Your task to perform on an android device: open app "DoorDash - Food Delivery" (install if not already installed) and enter user name: "Richard@outlook.com" and password: "informally" Image 0: 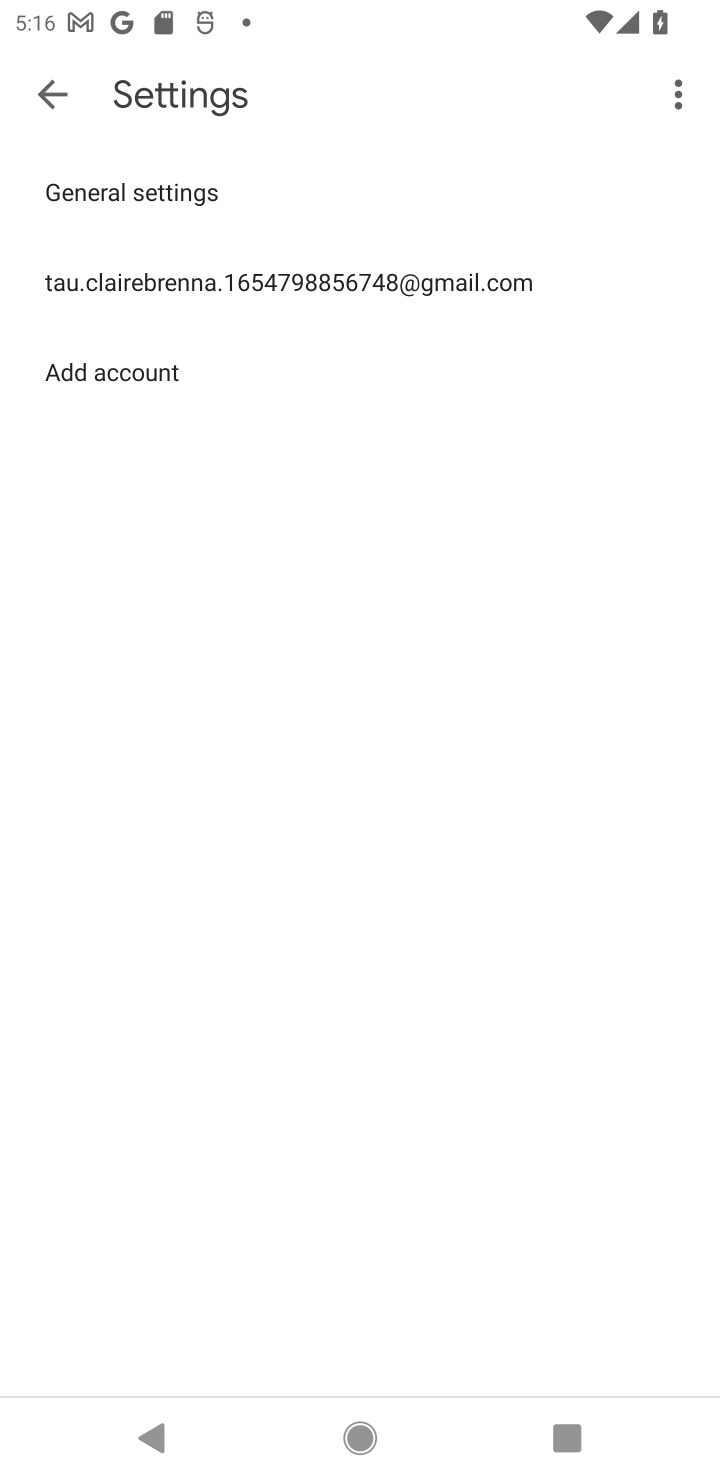
Step 0: press home button
Your task to perform on an android device: open app "DoorDash - Food Delivery" (install if not already installed) and enter user name: "Richard@outlook.com" and password: "informally" Image 1: 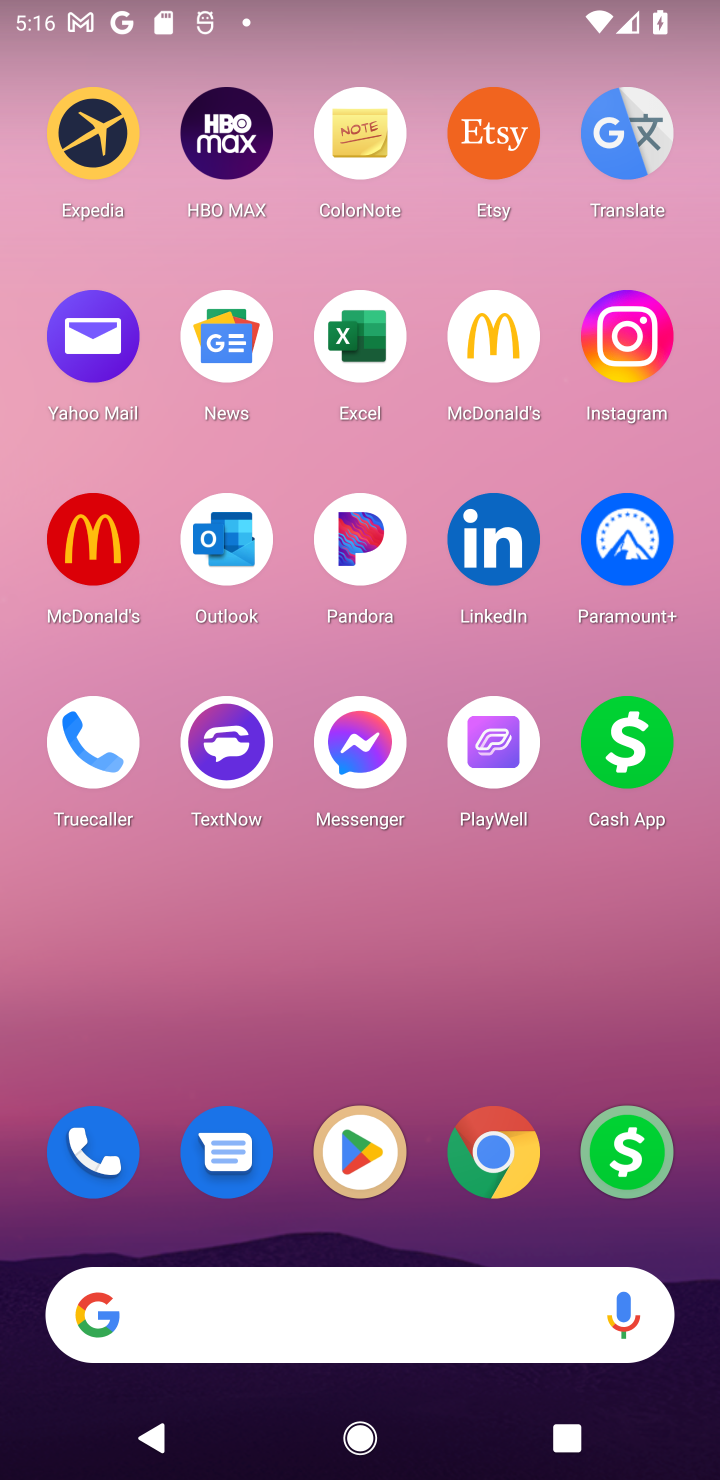
Step 1: click (364, 1163)
Your task to perform on an android device: open app "DoorDash - Food Delivery" (install if not already installed) and enter user name: "Richard@outlook.com" and password: "informally" Image 2: 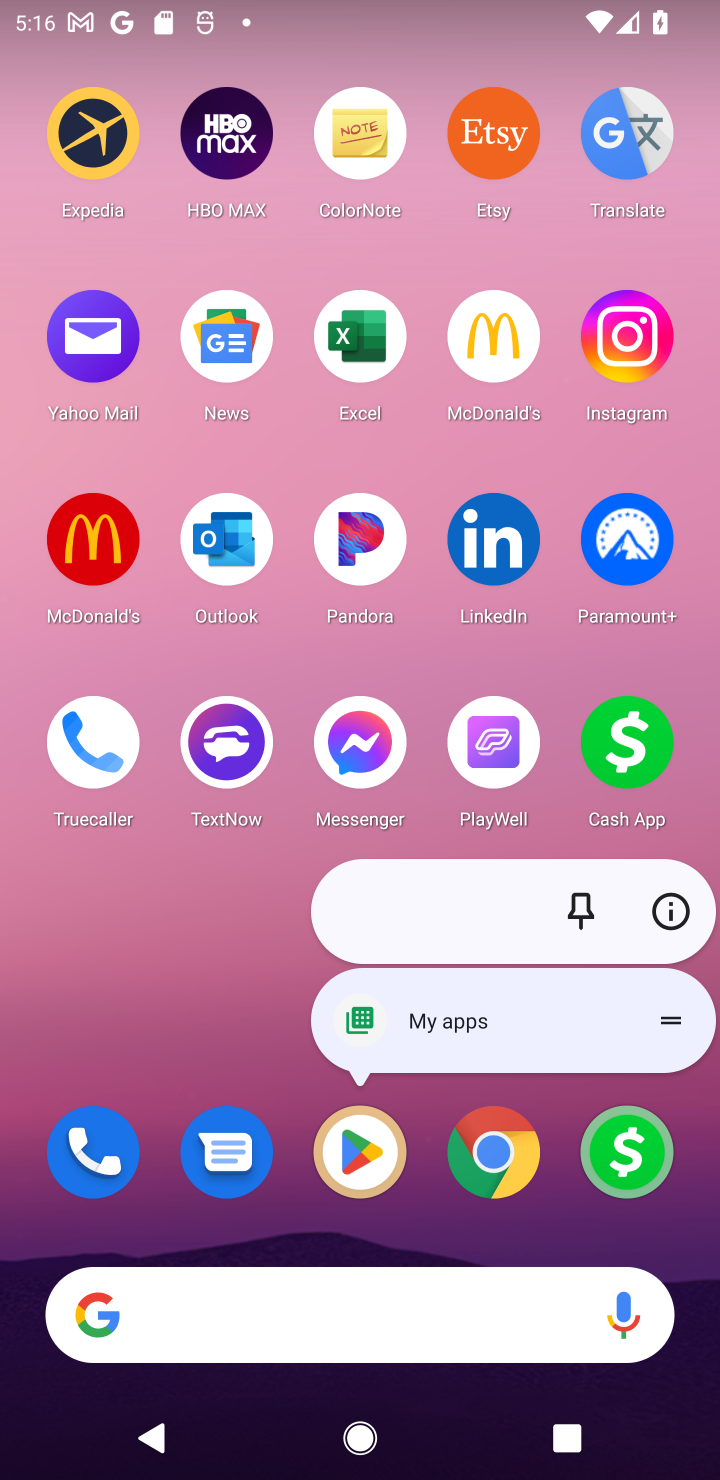
Step 2: click (383, 1164)
Your task to perform on an android device: open app "DoorDash - Food Delivery" (install if not already installed) and enter user name: "Richard@outlook.com" and password: "informally" Image 3: 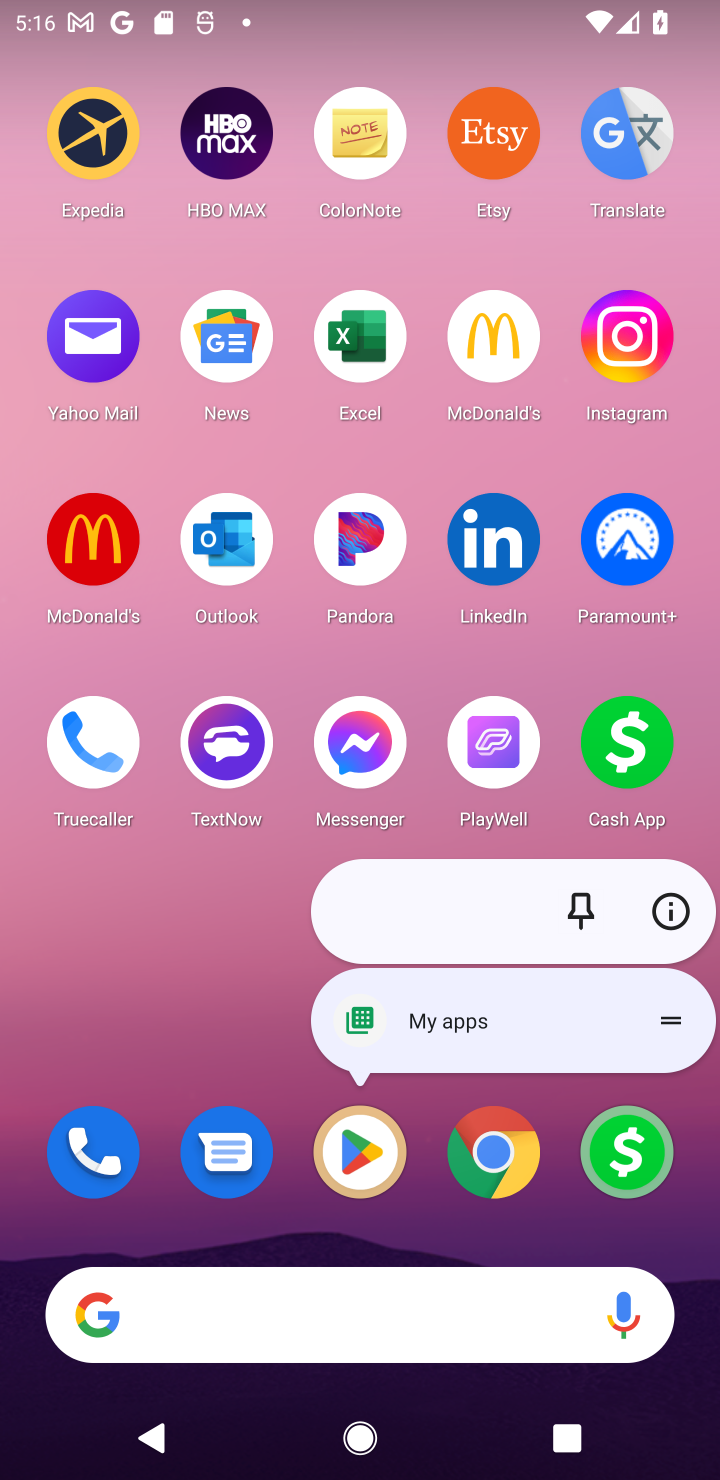
Step 3: click (318, 1124)
Your task to perform on an android device: open app "DoorDash - Food Delivery" (install if not already installed) and enter user name: "Richard@outlook.com" and password: "informally" Image 4: 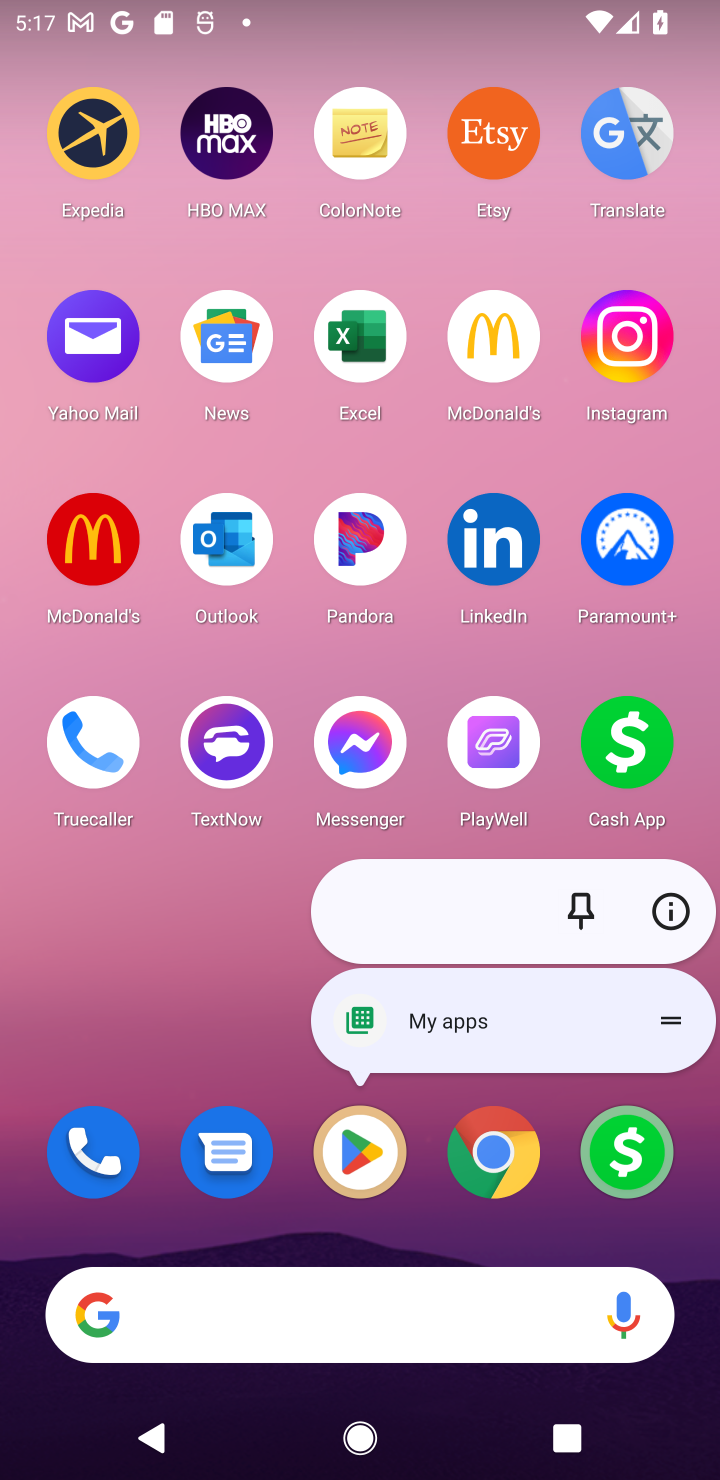
Step 4: click (342, 1164)
Your task to perform on an android device: open app "DoorDash - Food Delivery" (install if not already installed) and enter user name: "Richard@outlook.com" and password: "informally" Image 5: 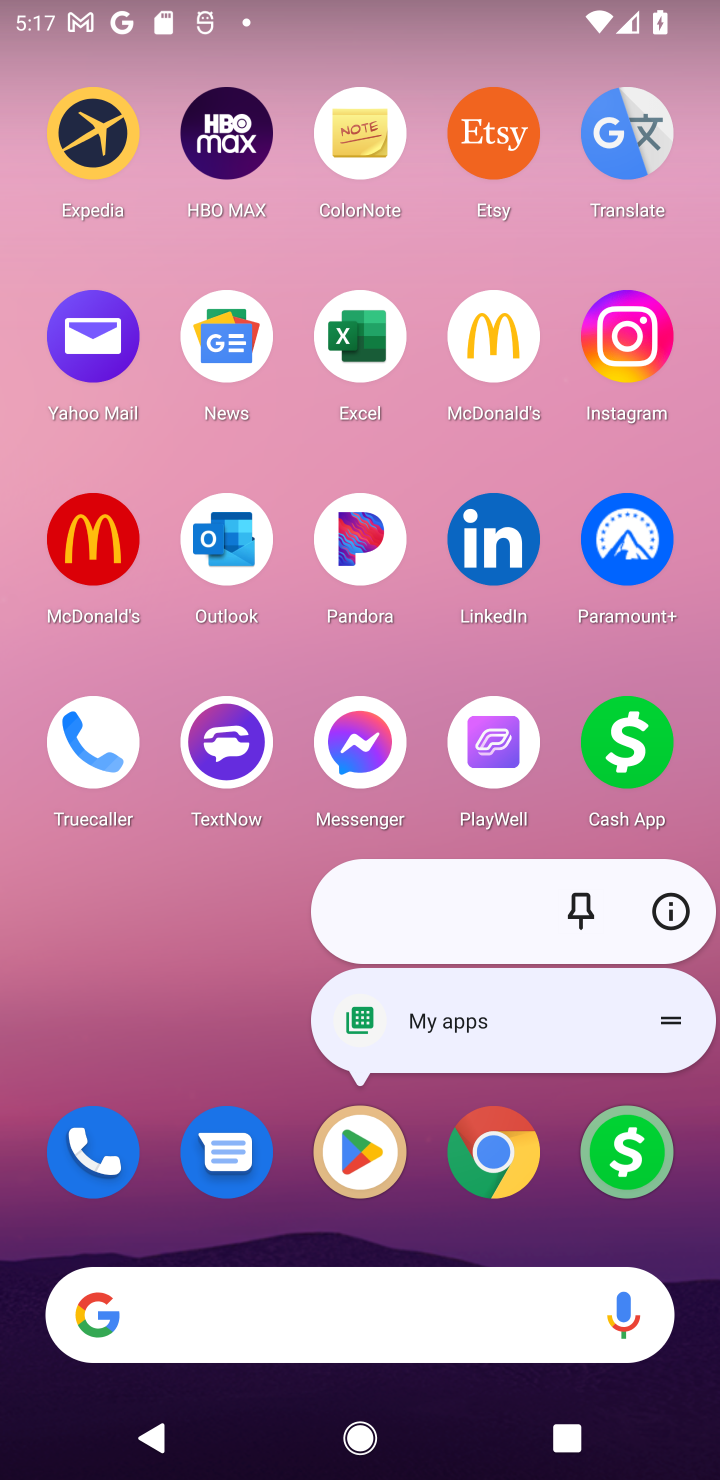
Step 5: click (370, 1150)
Your task to perform on an android device: open app "DoorDash - Food Delivery" (install if not already installed) and enter user name: "Richard@outlook.com" and password: "informally" Image 6: 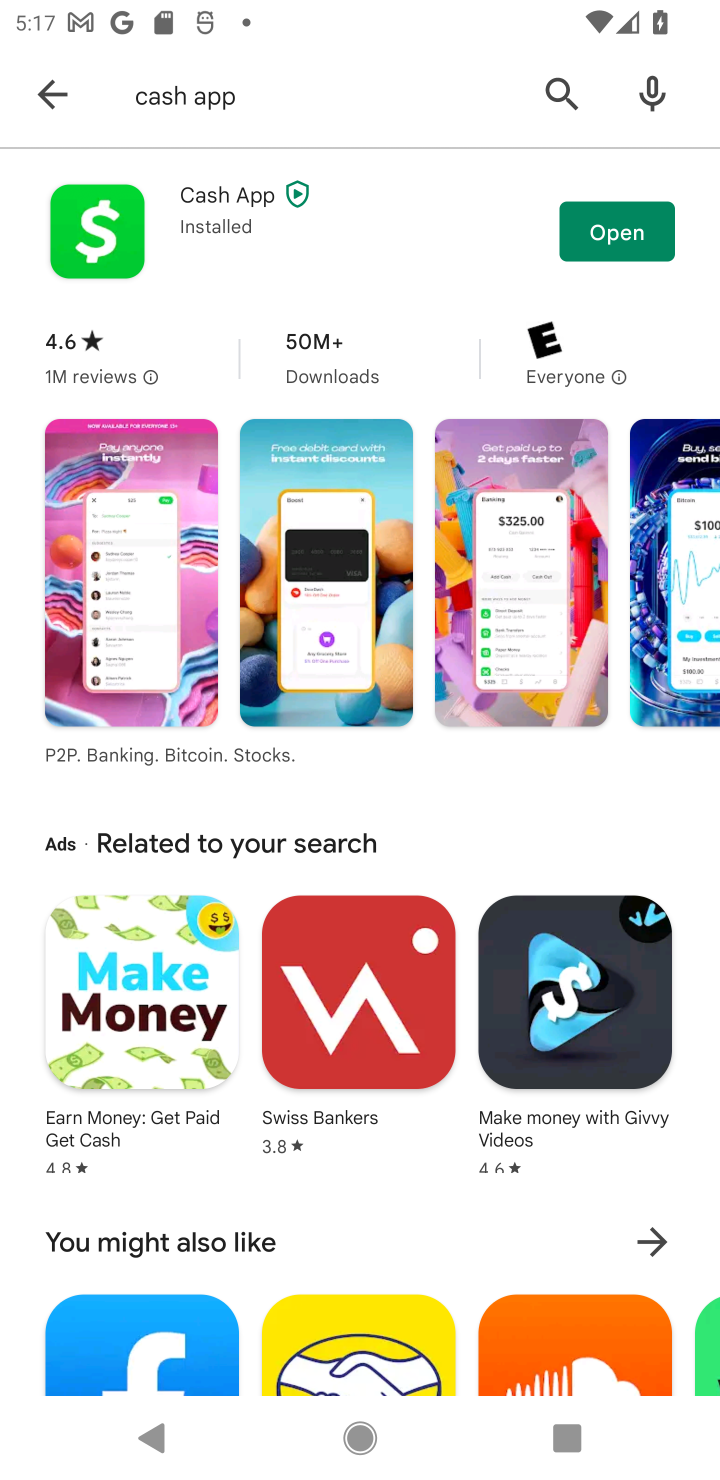
Step 6: click (21, 92)
Your task to perform on an android device: open app "DoorDash - Food Delivery" (install if not already installed) and enter user name: "Richard@outlook.com" and password: "informally" Image 7: 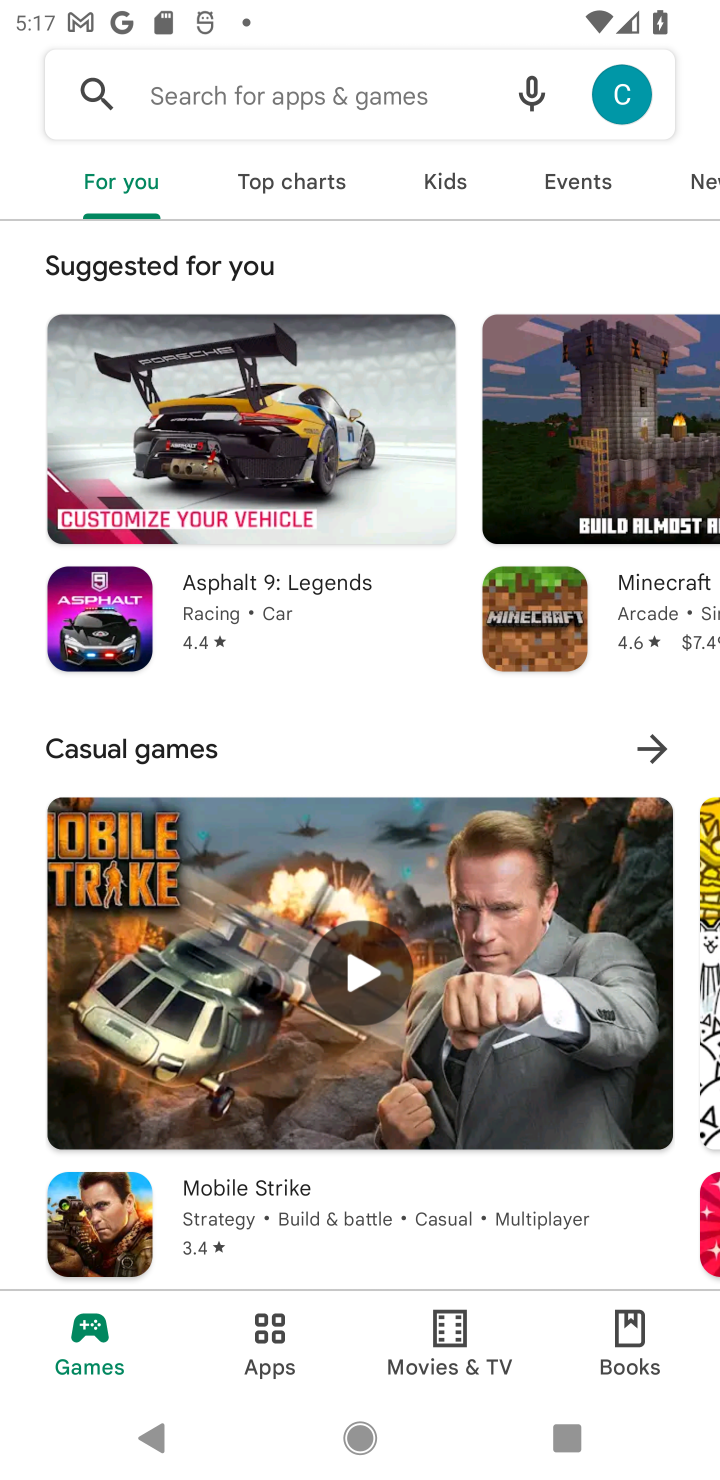
Step 7: click (324, 104)
Your task to perform on an android device: open app "DoorDash - Food Delivery" (install if not already installed) and enter user name: "Richard@outlook.com" and password: "informally" Image 8: 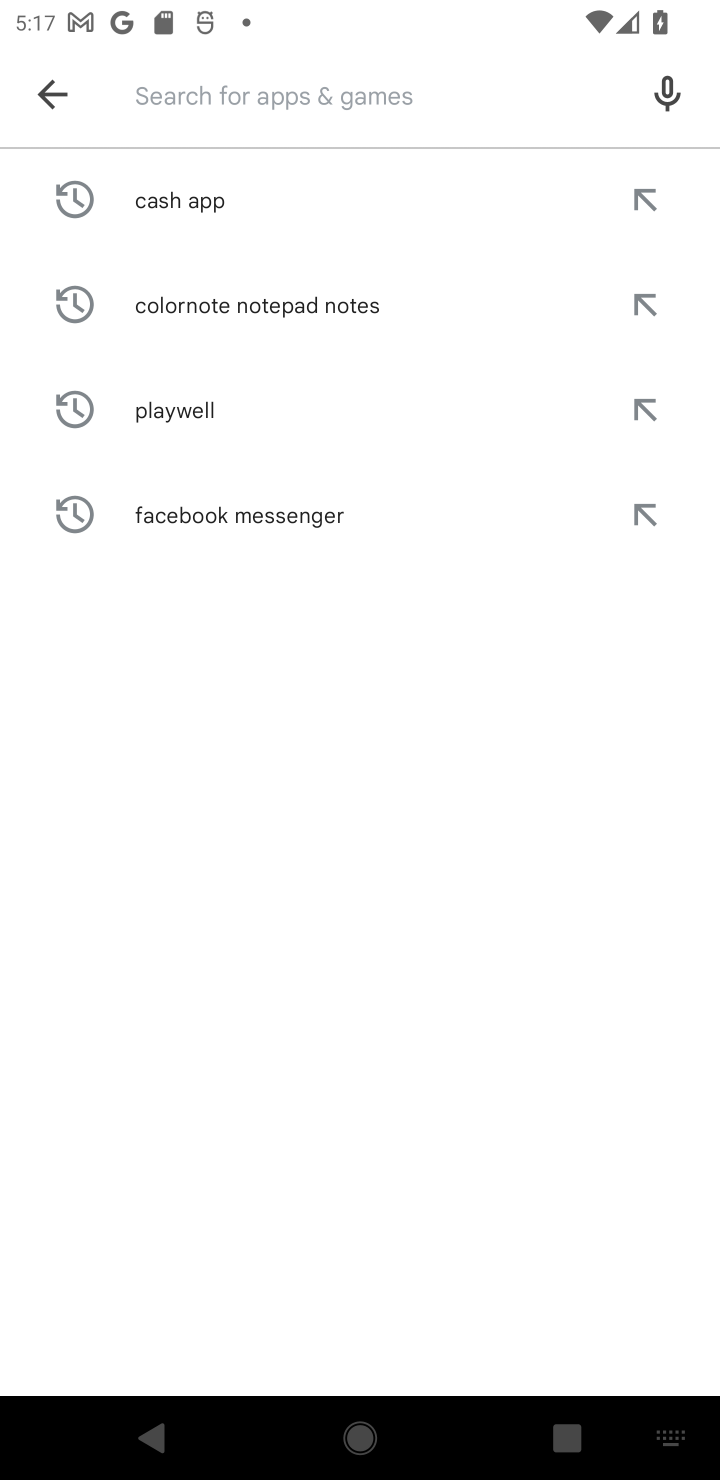
Step 8: type "DoorDash - Food Delivery"
Your task to perform on an android device: open app "DoorDash - Food Delivery" (install if not already installed) and enter user name: "Richard@outlook.com" and password: "informally" Image 9: 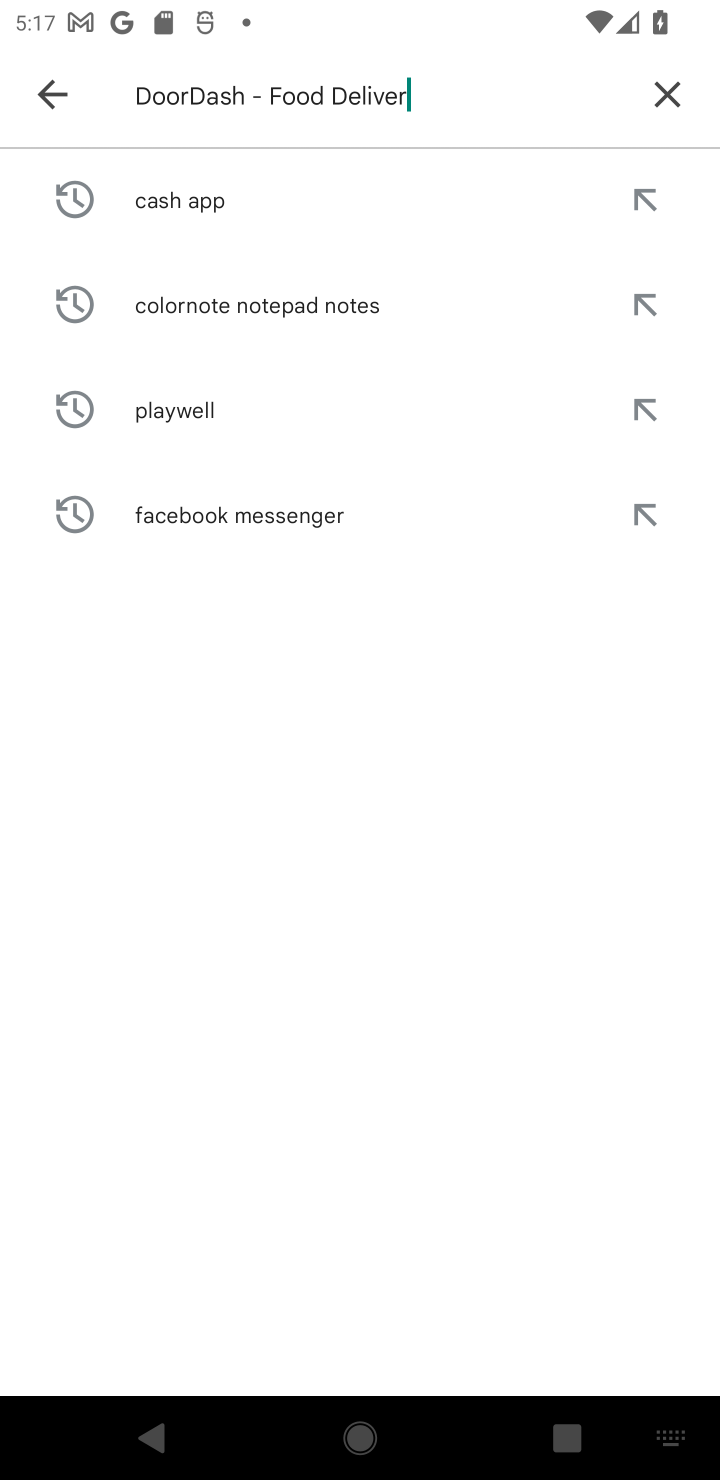
Step 9: type ""
Your task to perform on an android device: open app "DoorDash - Food Delivery" (install if not already installed) and enter user name: "Richard@outlook.com" and password: "informally" Image 10: 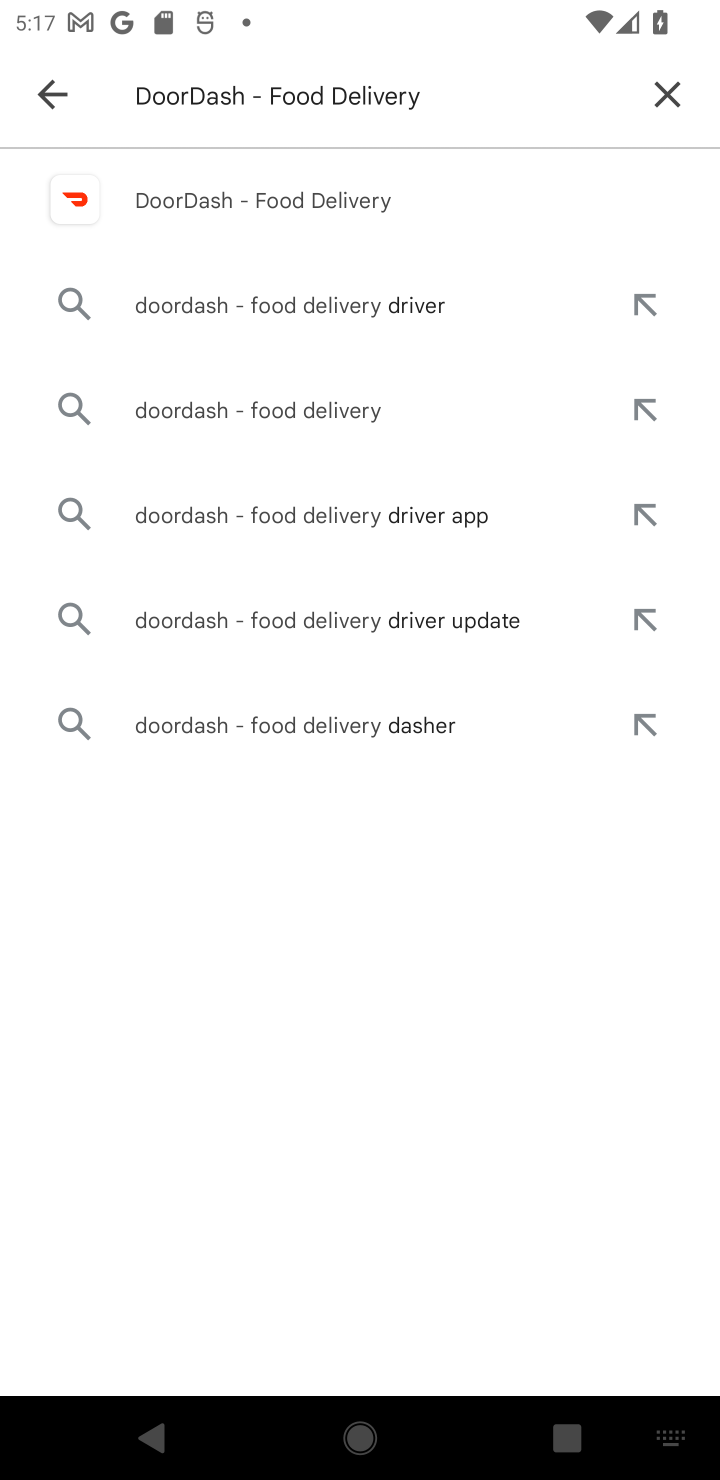
Step 10: click (257, 210)
Your task to perform on an android device: open app "DoorDash - Food Delivery" (install if not already installed) and enter user name: "Richard@outlook.com" and password: "informally" Image 11: 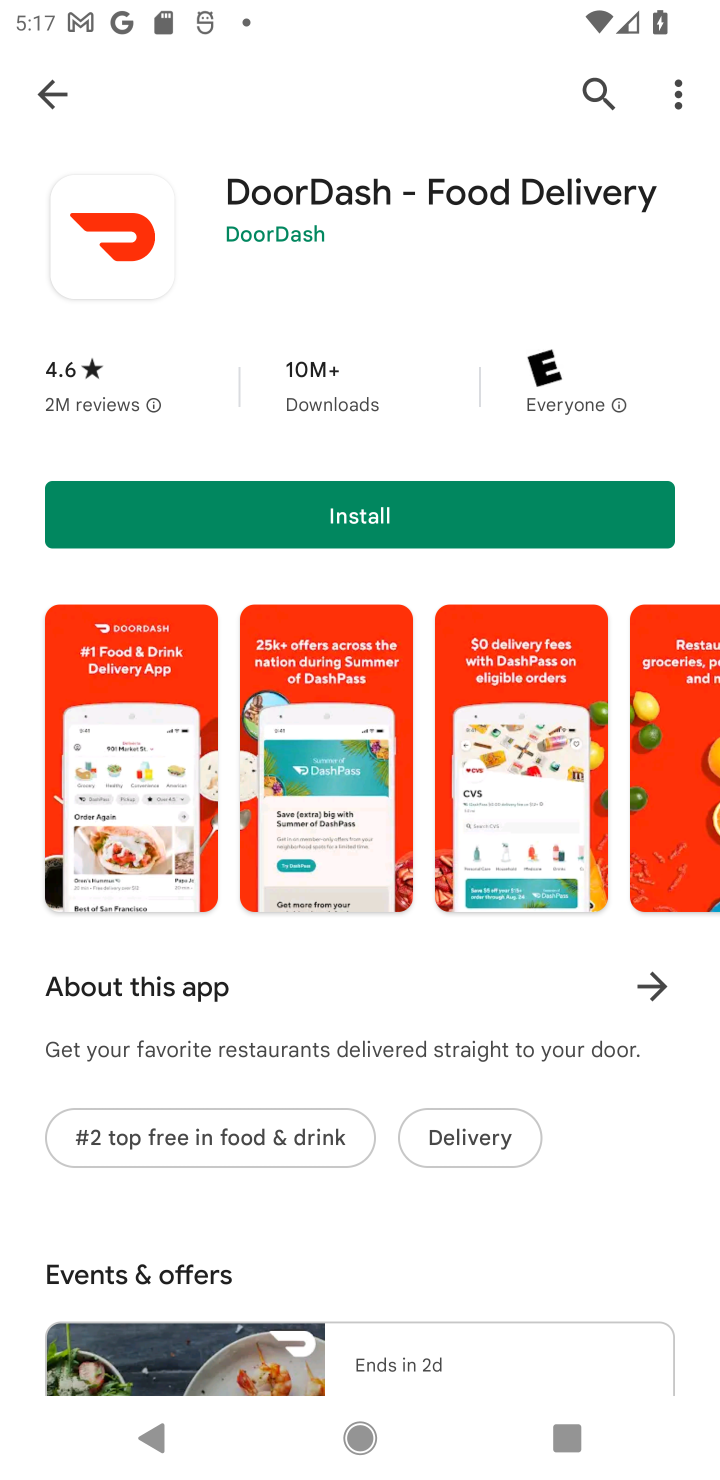
Step 11: click (335, 518)
Your task to perform on an android device: open app "DoorDash - Food Delivery" (install if not already installed) and enter user name: "Richard@outlook.com" and password: "informally" Image 12: 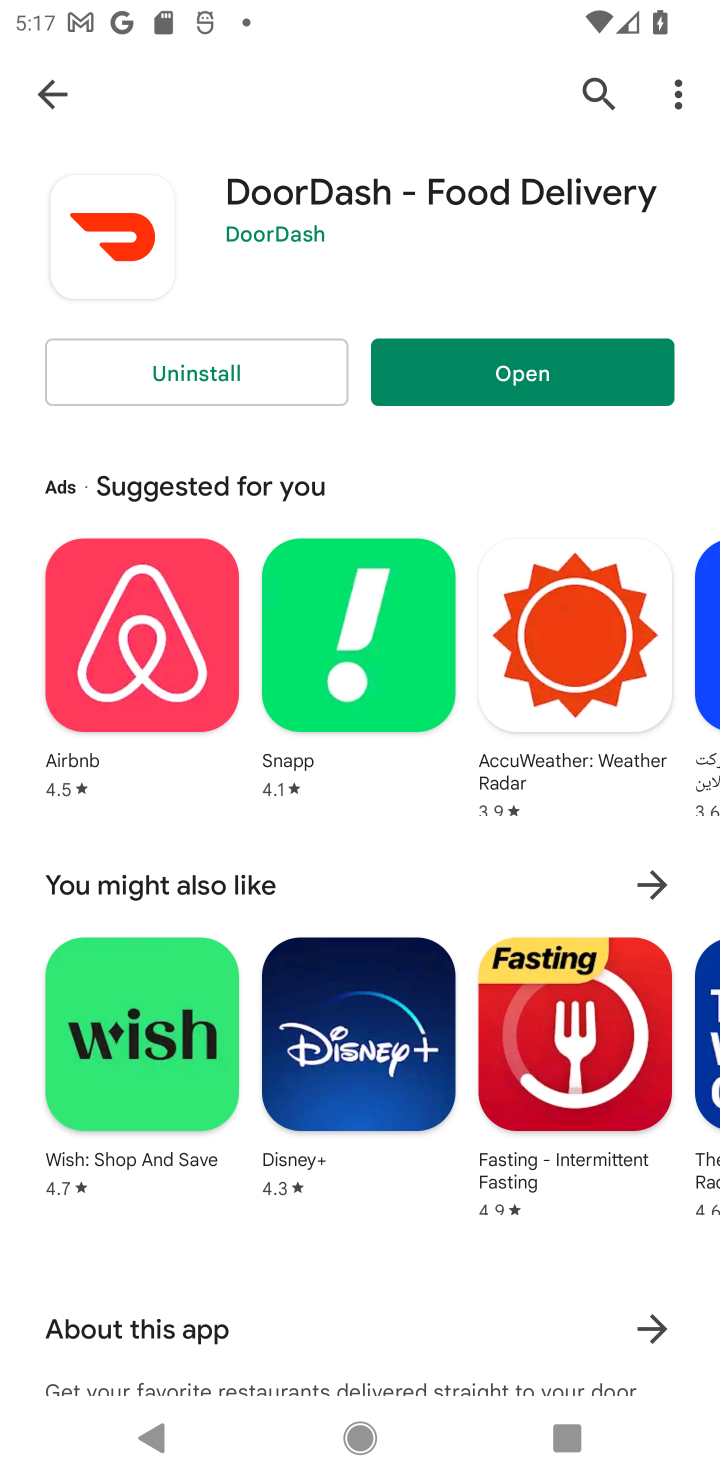
Step 12: click (462, 393)
Your task to perform on an android device: open app "DoorDash - Food Delivery" (install if not already installed) and enter user name: "Richard@outlook.com" and password: "informally" Image 13: 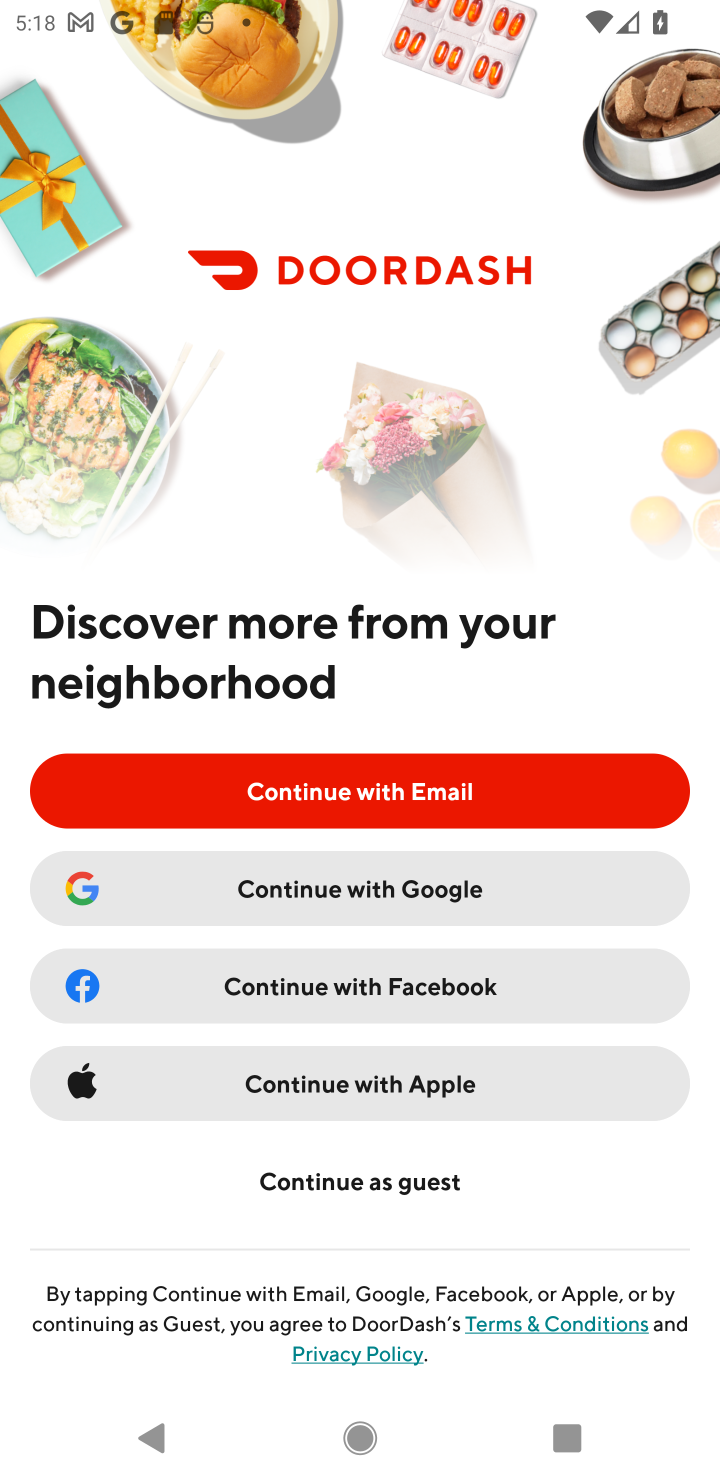
Step 13: click (382, 1193)
Your task to perform on an android device: open app "DoorDash - Food Delivery" (install if not already installed) and enter user name: "Richard@outlook.com" and password: "informally" Image 14: 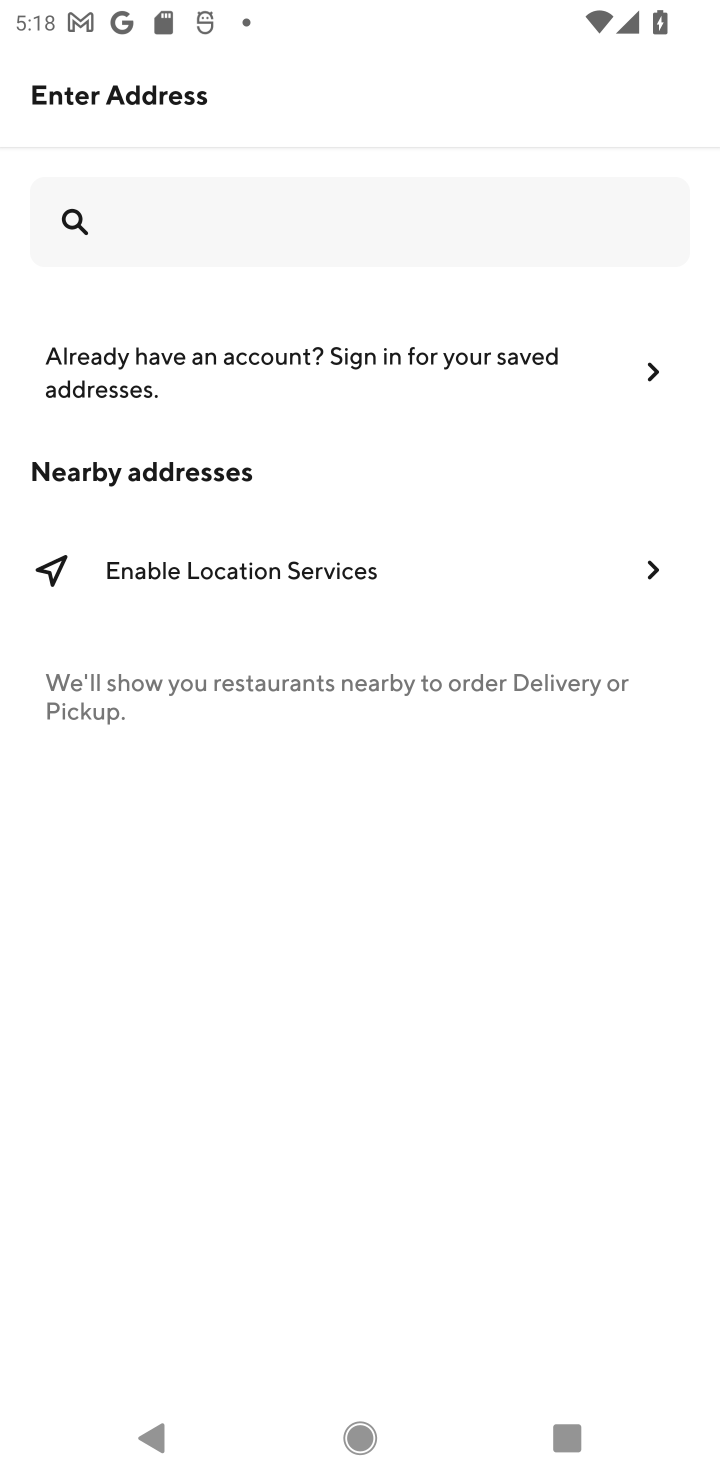
Step 14: task complete